Your task to perform on an android device: search for starred emails in the gmail app Image 0: 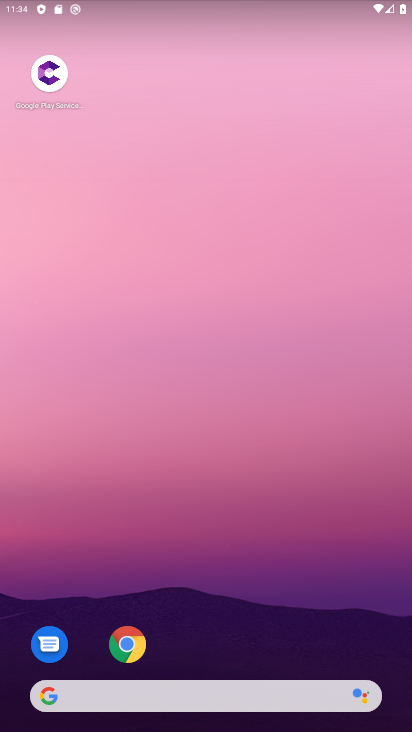
Step 0: drag from (323, 612) to (323, 16)
Your task to perform on an android device: search for starred emails in the gmail app Image 1: 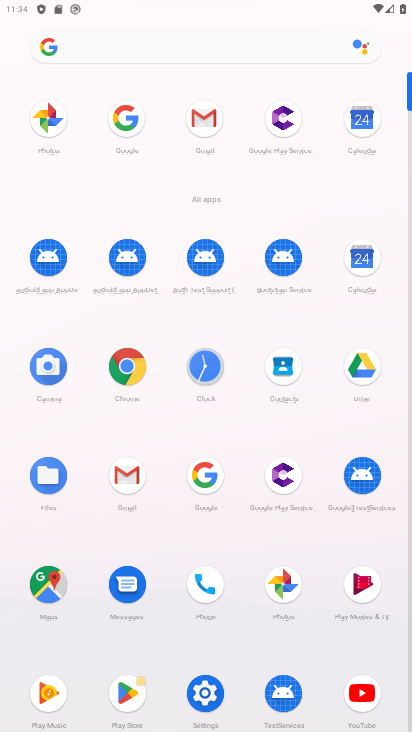
Step 1: click (198, 119)
Your task to perform on an android device: search for starred emails in the gmail app Image 2: 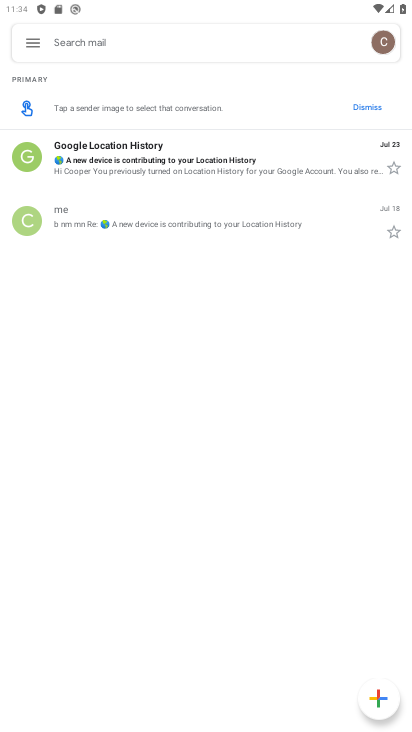
Step 2: click (30, 36)
Your task to perform on an android device: search for starred emails in the gmail app Image 3: 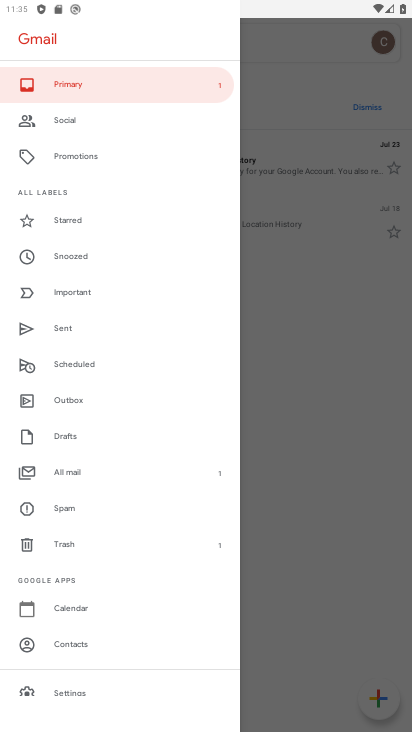
Step 3: click (92, 221)
Your task to perform on an android device: search for starred emails in the gmail app Image 4: 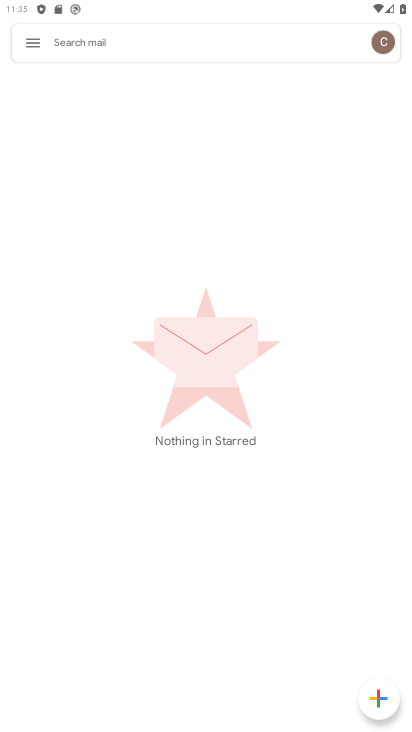
Step 4: task complete